Your task to perform on an android device: open sync settings in chrome Image 0: 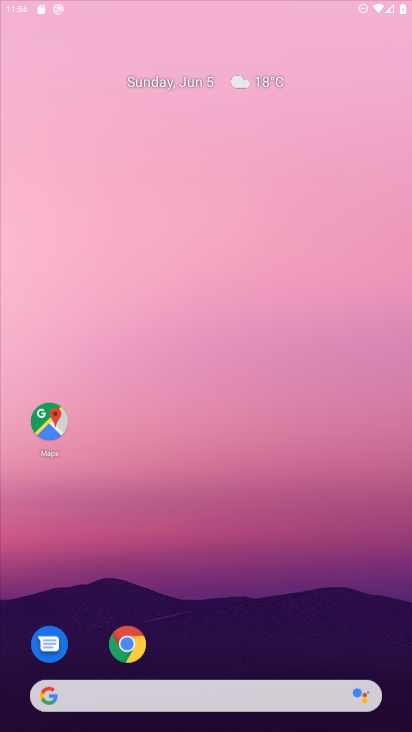
Step 0: drag from (287, 726) to (235, 302)
Your task to perform on an android device: open sync settings in chrome Image 1: 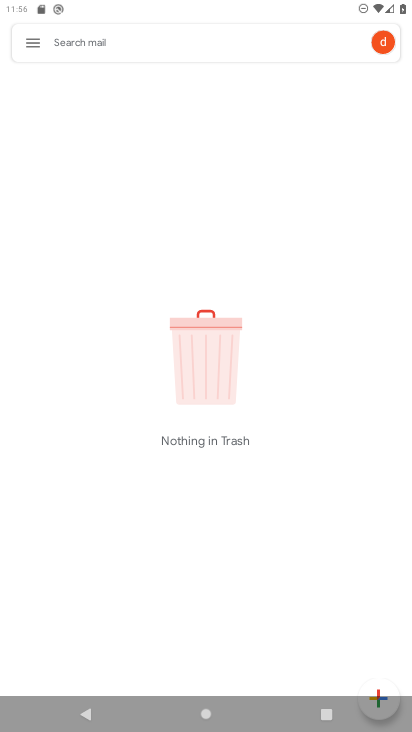
Step 1: press home button
Your task to perform on an android device: open sync settings in chrome Image 2: 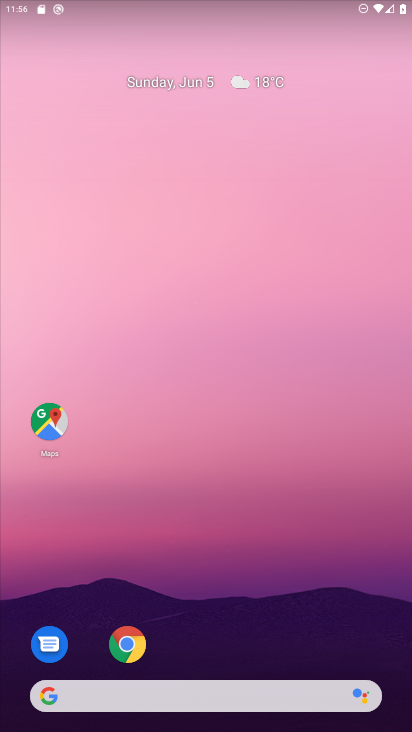
Step 2: drag from (284, 722) to (221, 271)
Your task to perform on an android device: open sync settings in chrome Image 3: 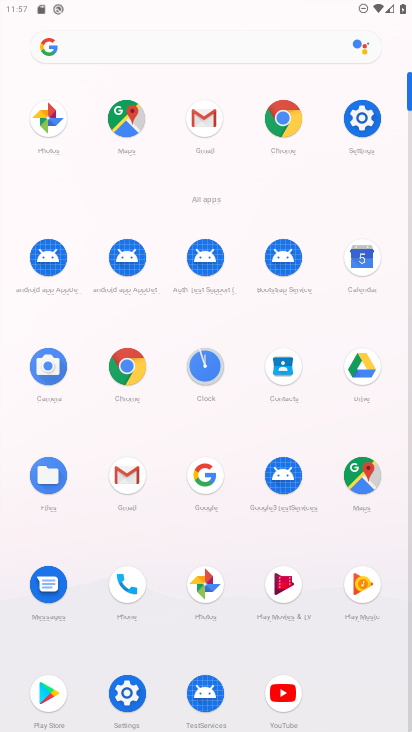
Step 3: click (301, 111)
Your task to perform on an android device: open sync settings in chrome Image 4: 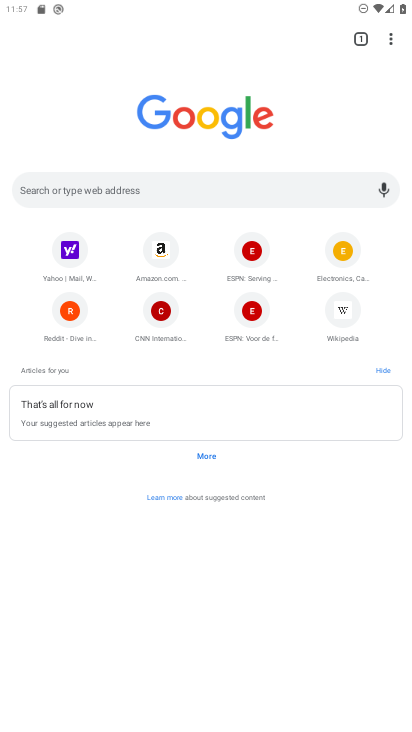
Step 4: click (389, 55)
Your task to perform on an android device: open sync settings in chrome Image 5: 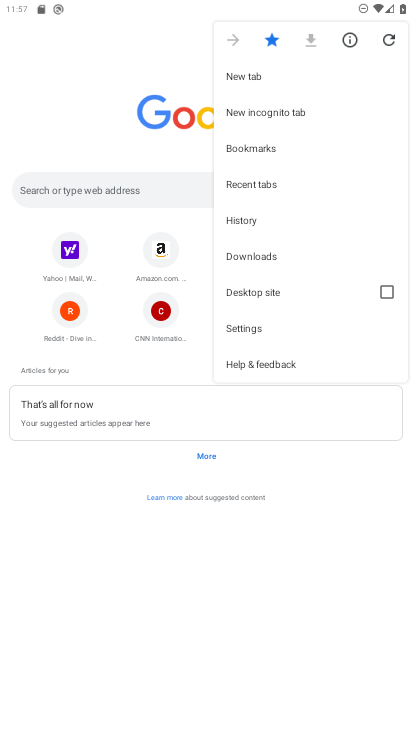
Step 5: click (259, 319)
Your task to perform on an android device: open sync settings in chrome Image 6: 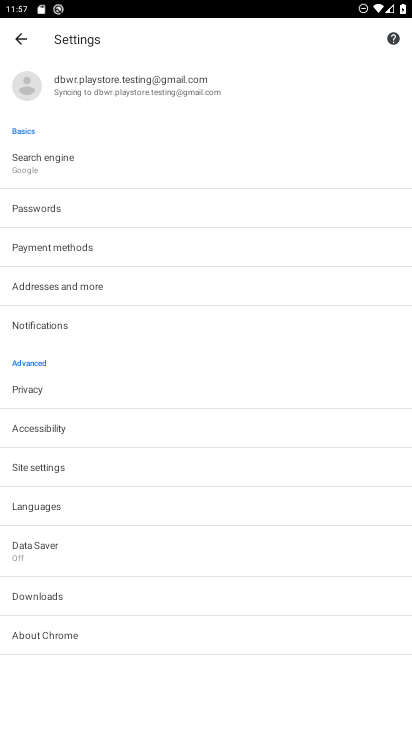
Step 6: click (74, 468)
Your task to perform on an android device: open sync settings in chrome Image 7: 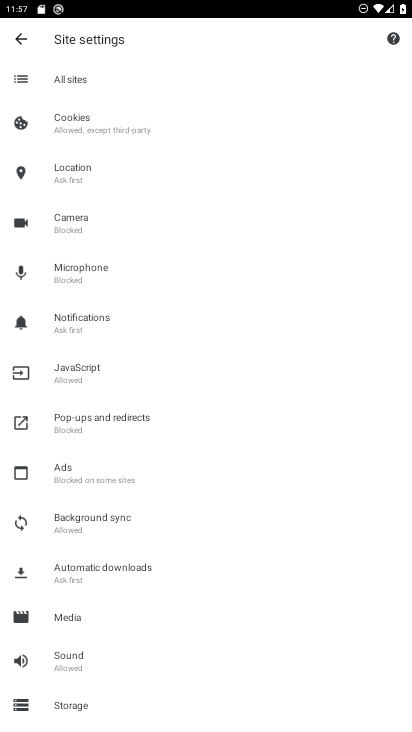
Step 7: click (125, 523)
Your task to perform on an android device: open sync settings in chrome Image 8: 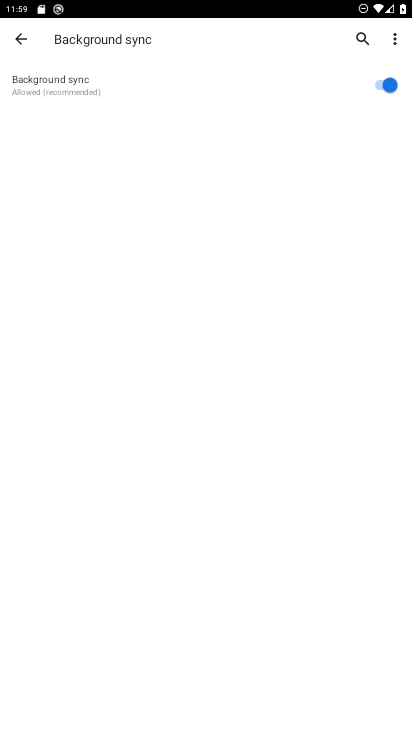
Step 8: task complete